Your task to perform on an android device: Open sound settings Image 0: 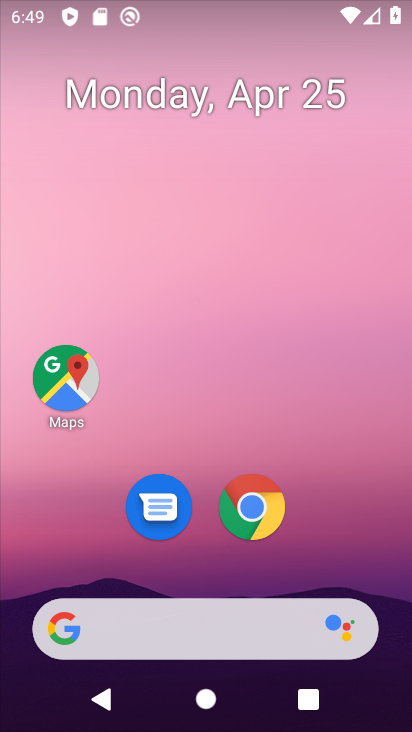
Step 0: click (261, 476)
Your task to perform on an android device: Open sound settings Image 1: 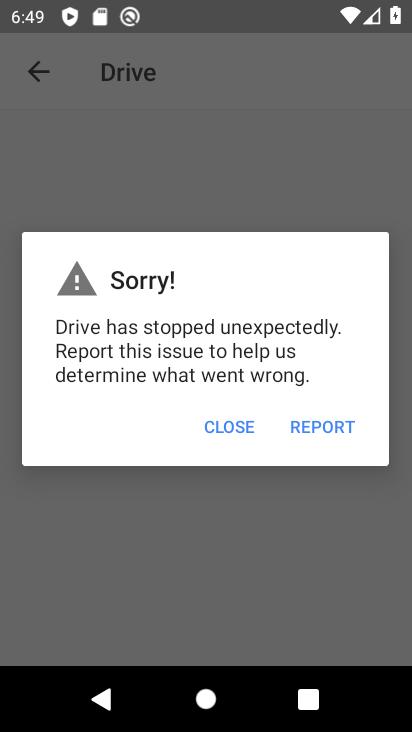
Step 1: press home button
Your task to perform on an android device: Open sound settings Image 2: 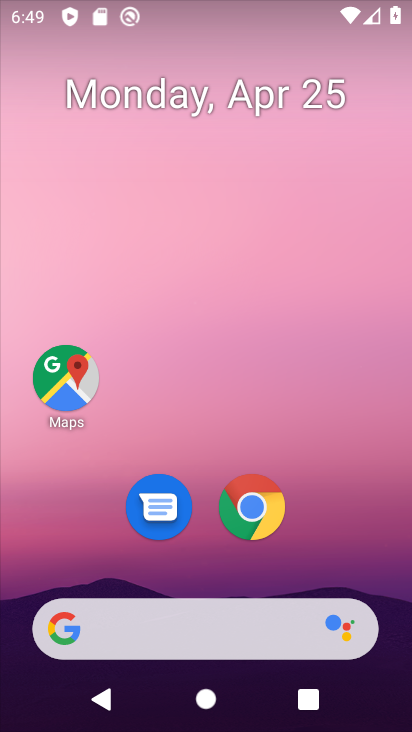
Step 2: drag from (347, 548) to (265, 79)
Your task to perform on an android device: Open sound settings Image 3: 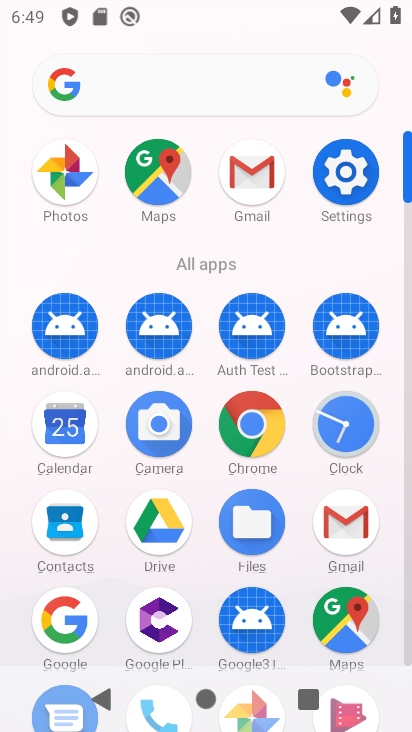
Step 3: click (320, 154)
Your task to perform on an android device: Open sound settings Image 4: 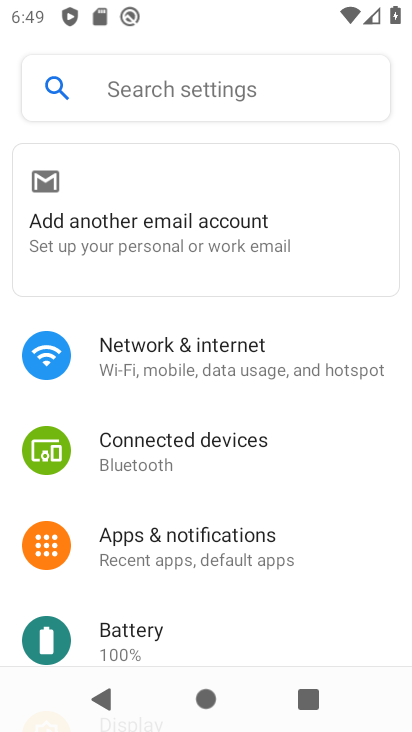
Step 4: drag from (164, 518) to (98, 206)
Your task to perform on an android device: Open sound settings Image 5: 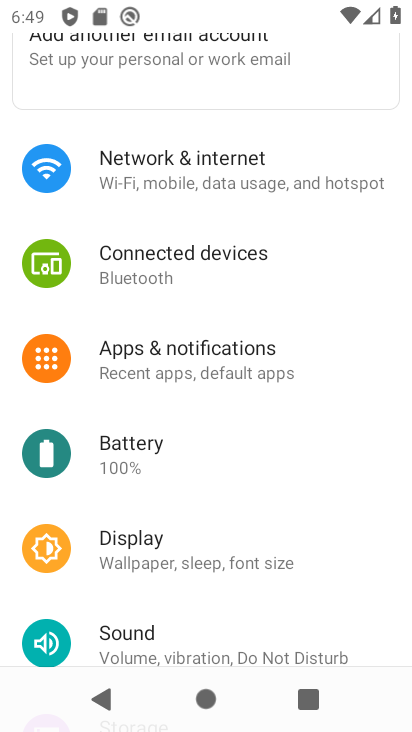
Step 5: click (103, 646)
Your task to perform on an android device: Open sound settings Image 6: 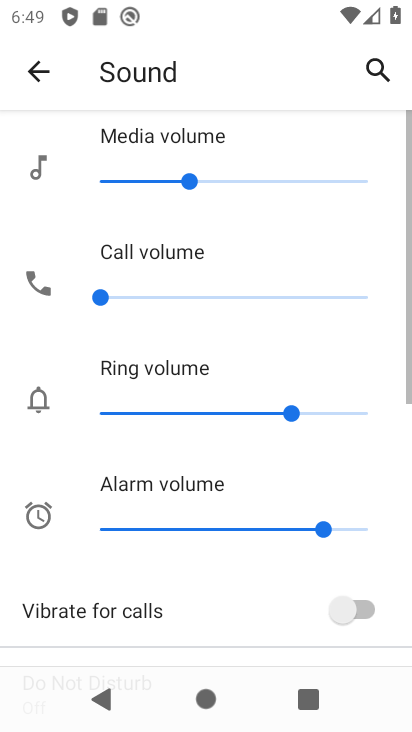
Step 6: task complete